Your task to perform on an android device: toggle wifi Image 0: 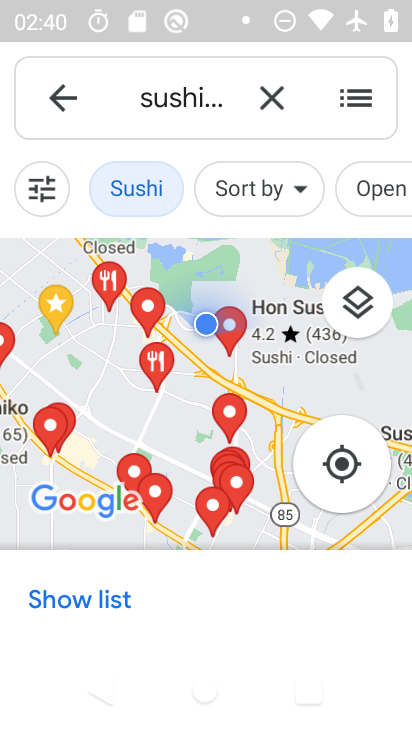
Step 0: press home button
Your task to perform on an android device: toggle wifi Image 1: 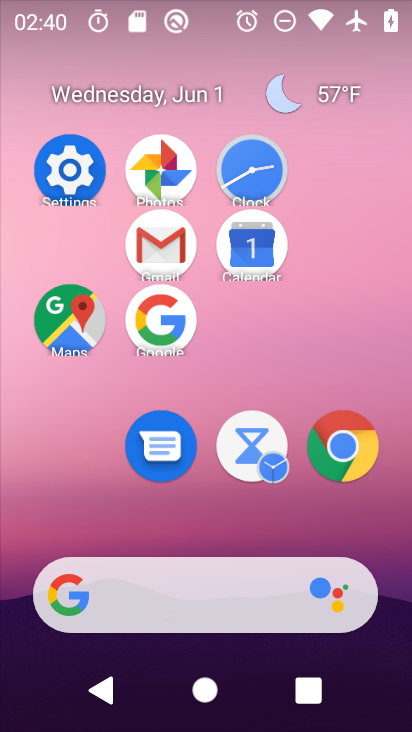
Step 1: click (73, 167)
Your task to perform on an android device: toggle wifi Image 2: 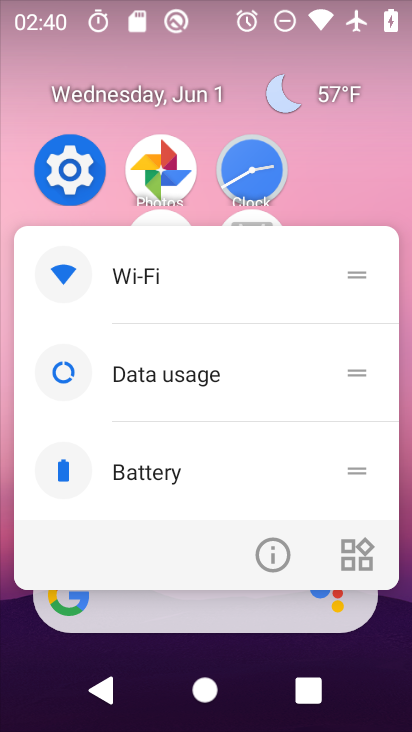
Step 2: click (135, 268)
Your task to perform on an android device: toggle wifi Image 3: 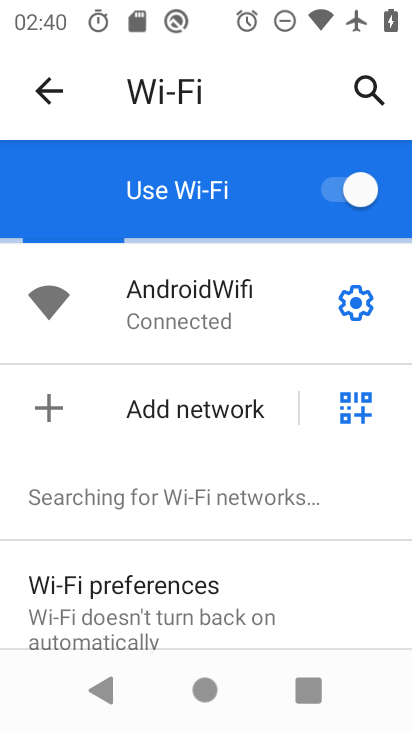
Step 3: click (342, 176)
Your task to perform on an android device: toggle wifi Image 4: 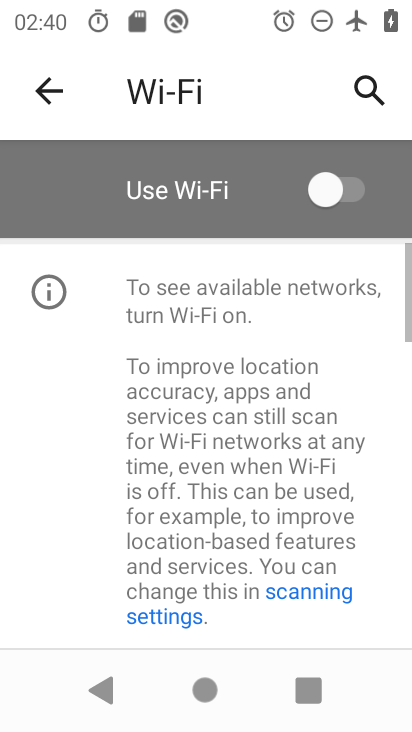
Step 4: task complete